Your task to perform on an android device: turn off airplane mode Image 0: 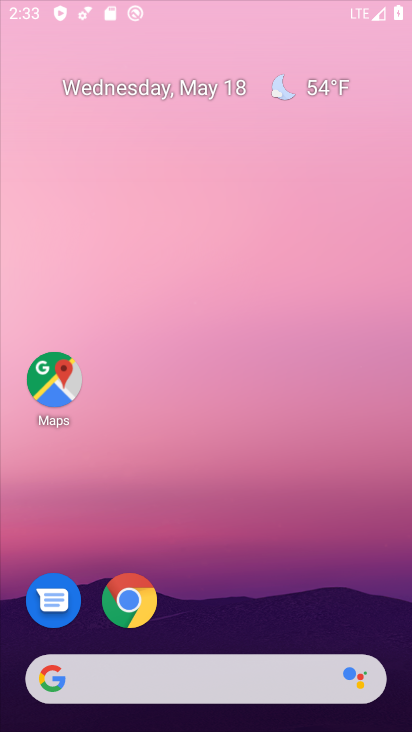
Step 0: press home button
Your task to perform on an android device: turn off airplane mode Image 1: 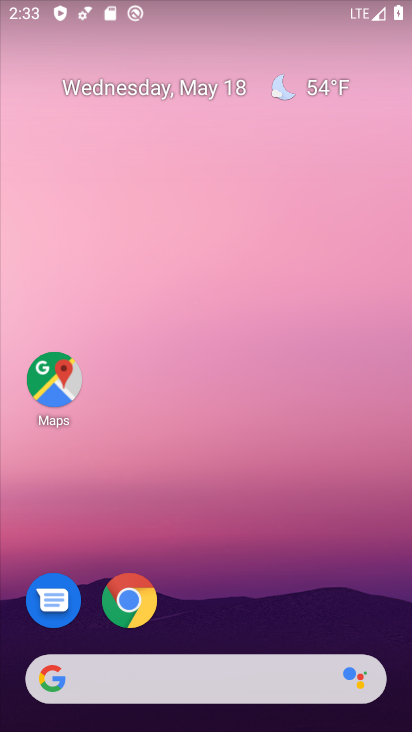
Step 1: drag from (172, 637) to (318, 178)
Your task to perform on an android device: turn off airplane mode Image 2: 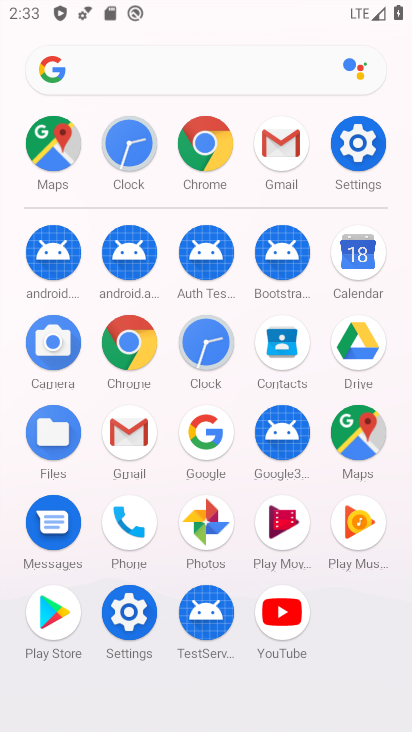
Step 2: click (367, 160)
Your task to perform on an android device: turn off airplane mode Image 3: 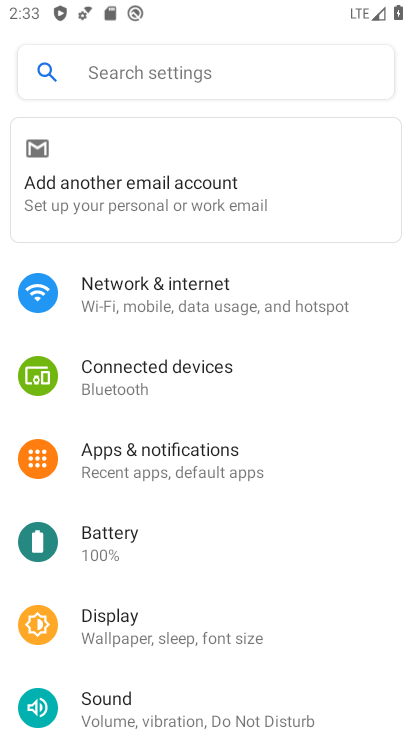
Step 3: click (185, 287)
Your task to perform on an android device: turn off airplane mode Image 4: 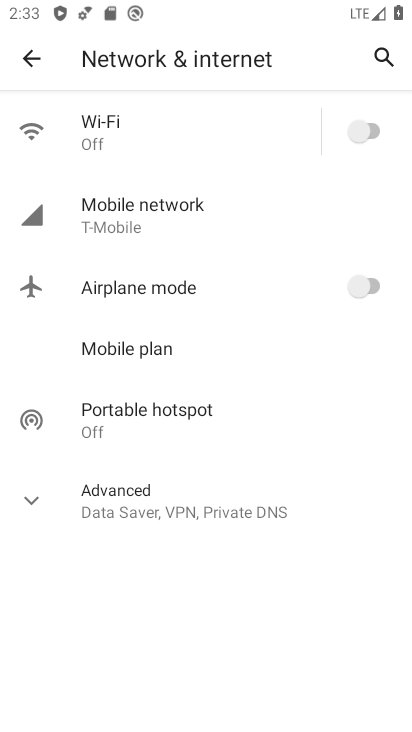
Step 4: task complete